Your task to perform on an android device: move a message to another label in the gmail app Image 0: 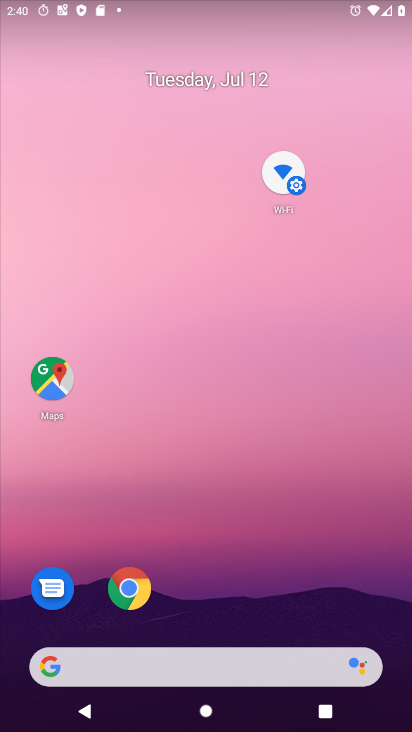
Step 0: click (359, 72)
Your task to perform on an android device: move a message to another label in the gmail app Image 1: 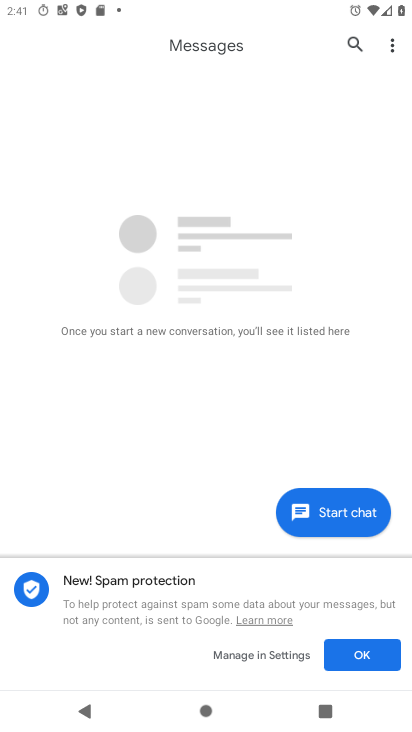
Step 1: drag from (170, 621) to (312, 40)
Your task to perform on an android device: move a message to another label in the gmail app Image 2: 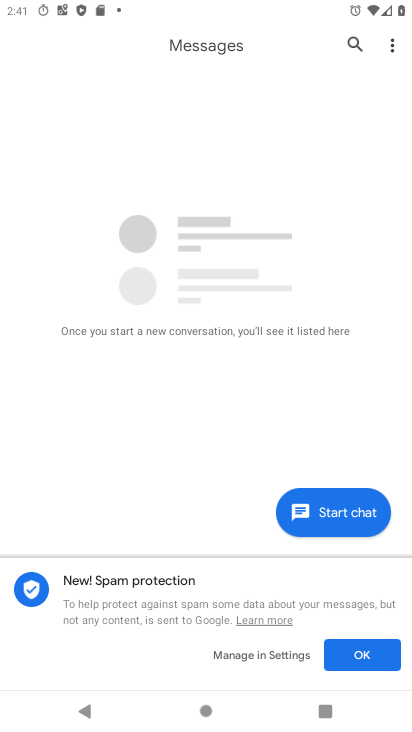
Step 2: press home button
Your task to perform on an android device: move a message to another label in the gmail app Image 3: 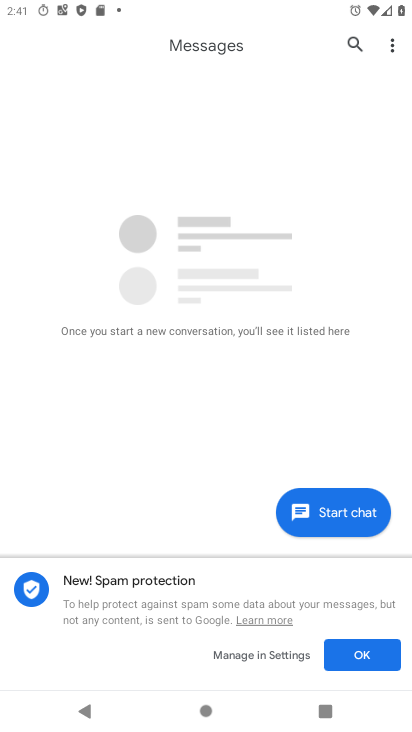
Step 3: drag from (260, 477) to (354, 34)
Your task to perform on an android device: move a message to another label in the gmail app Image 4: 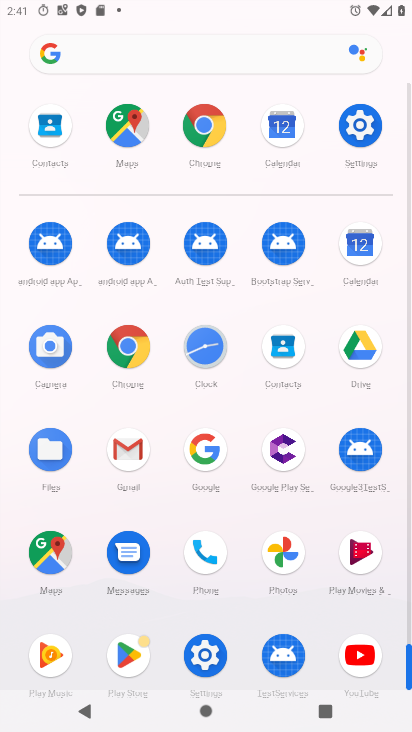
Step 4: click (124, 438)
Your task to perform on an android device: move a message to another label in the gmail app Image 5: 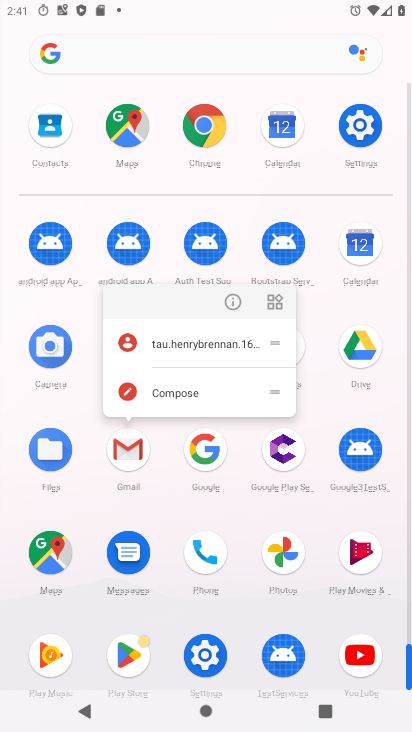
Step 5: click (238, 296)
Your task to perform on an android device: move a message to another label in the gmail app Image 6: 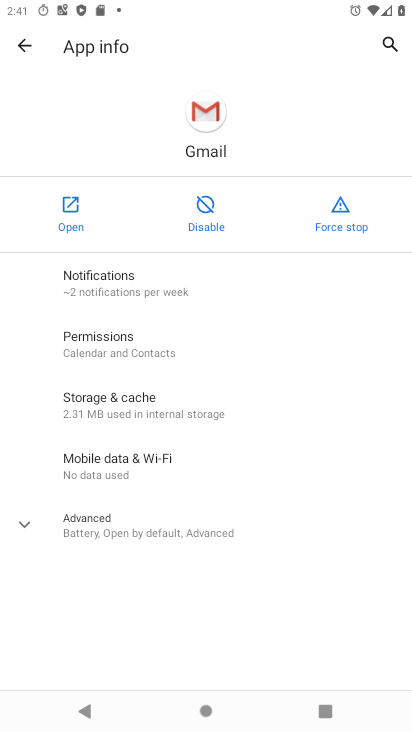
Step 6: click (77, 202)
Your task to perform on an android device: move a message to another label in the gmail app Image 7: 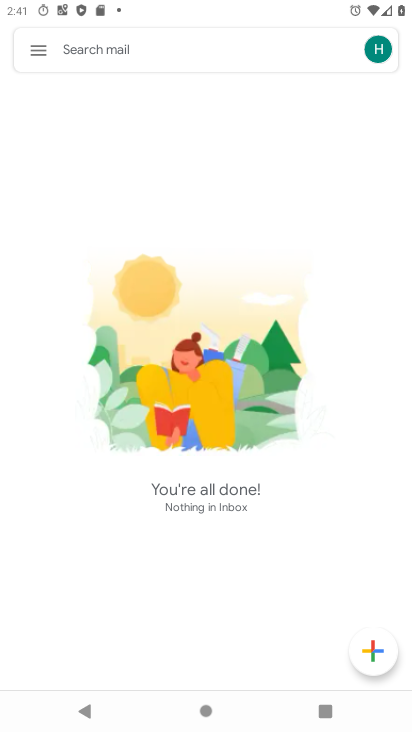
Step 7: click (33, 51)
Your task to perform on an android device: move a message to another label in the gmail app Image 8: 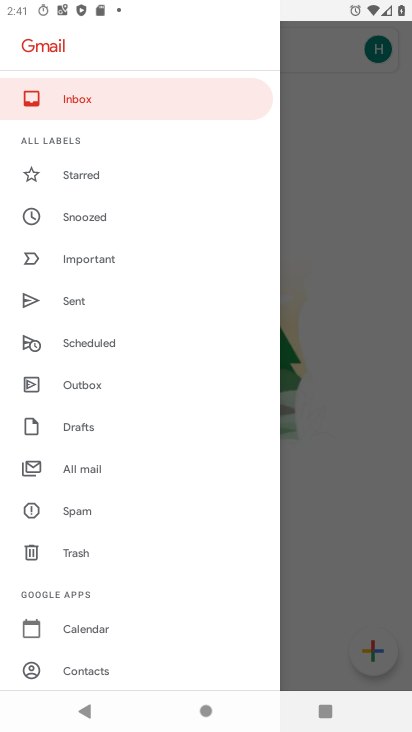
Step 8: drag from (90, 637) to (186, 162)
Your task to perform on an android device: move a message to another label in the gmail app Image 9: 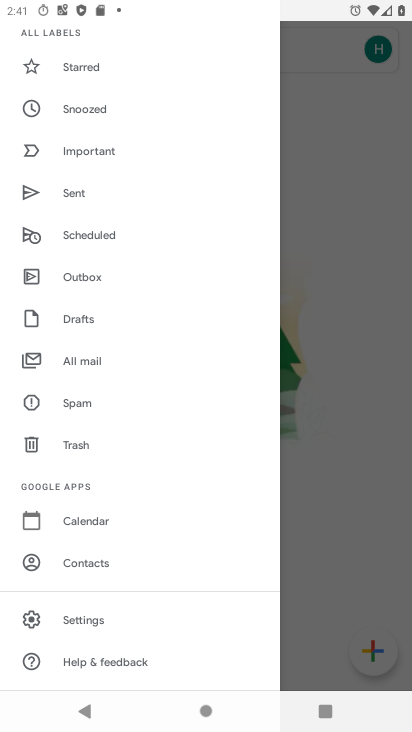
Step 9: click (287, 514)
Your task to perform on an android device: move a message to another label in the gmail app Image 10: 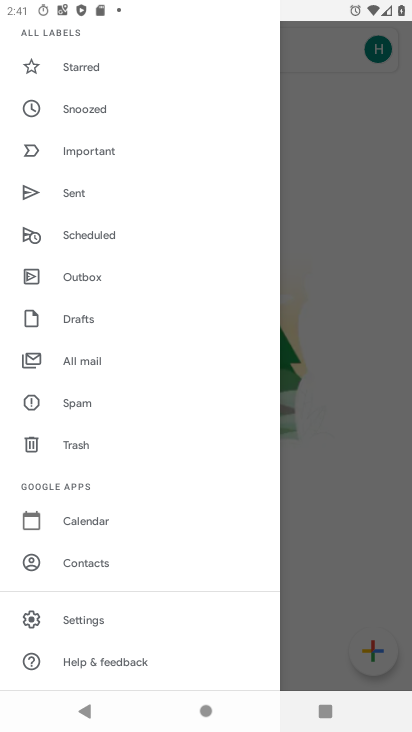
Step 10: click (294, 512)
Your task to perform on an android device: move a message to another label in the gmail app Image 11: 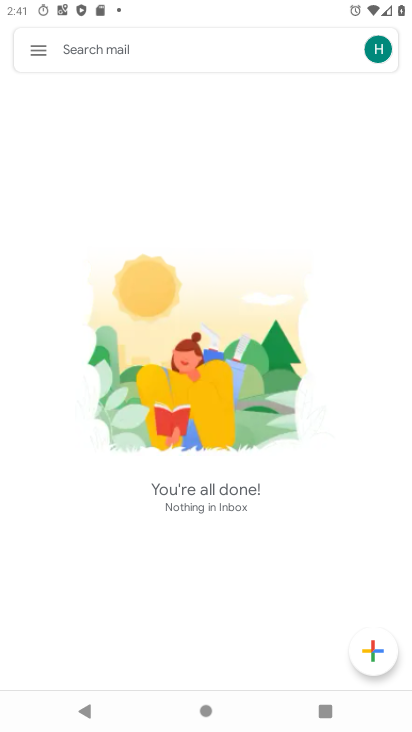
Step 11: task complete